Your task to perform on an android device: Search for "jbl flip 4" on bestbuy.com, select the first entry, add it to the cart, then select checkout. Image 0: 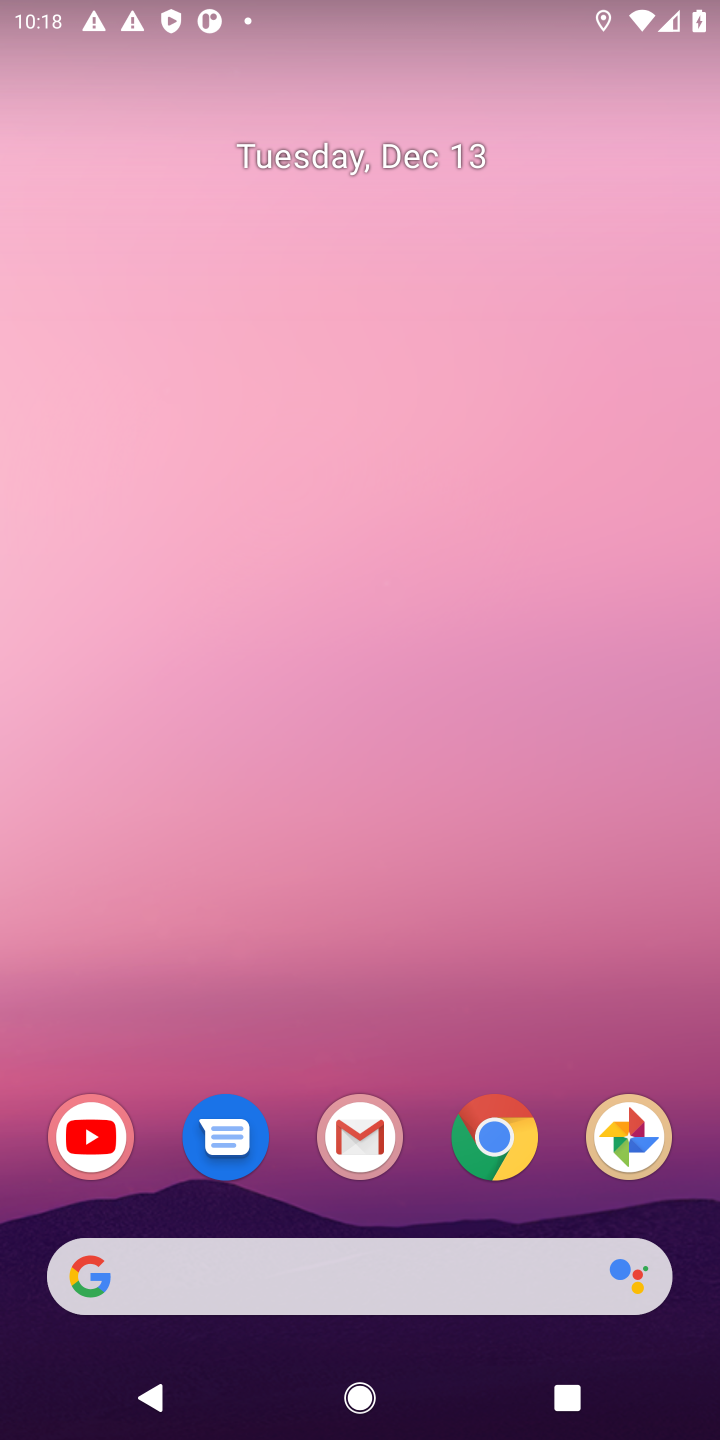
Step 0: click (501, 1166)
Your task to perform on an android device: Search for "jbl flip 4" on bestbuy.com, select the first entry, add it to the cart, then select checkout. Image 1: 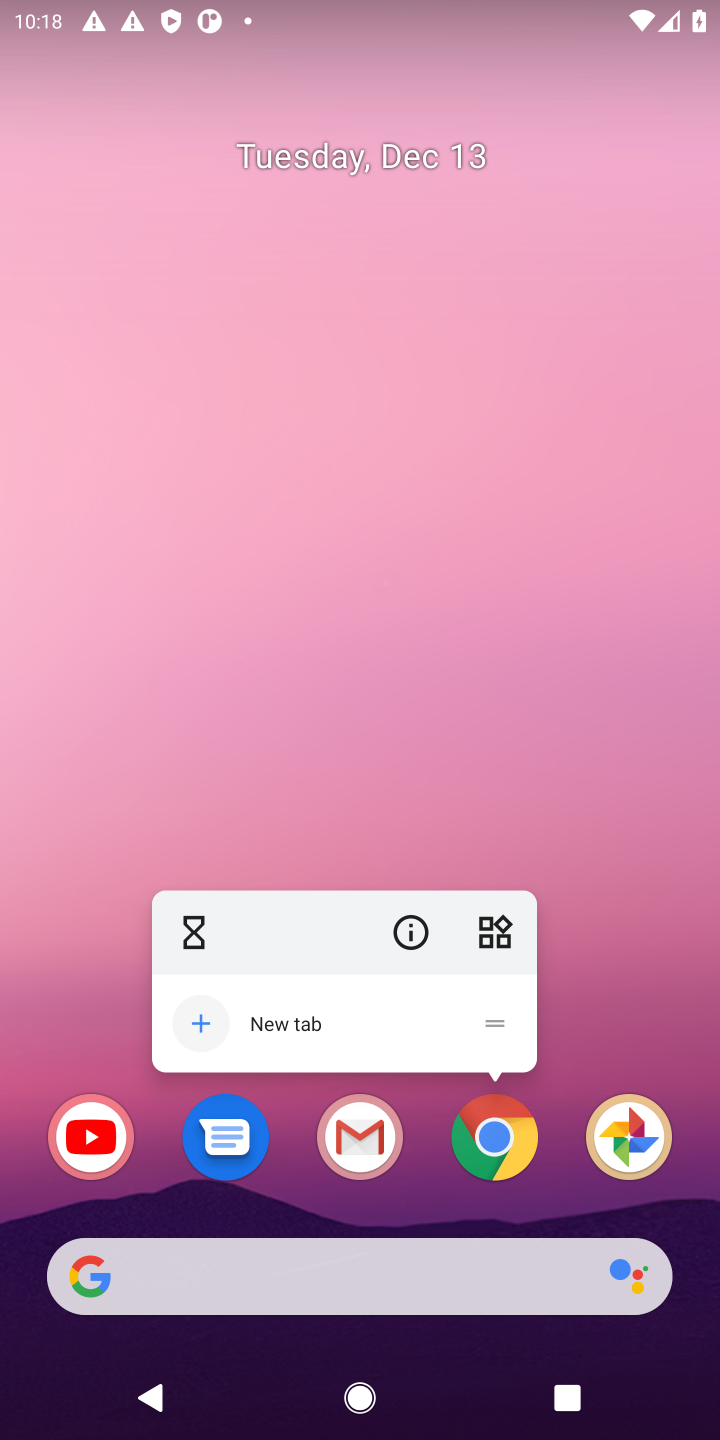
Step 1: click (499, 1130)
Your task to perform on an android device: Search for "jbl flip 4" on bestbuy.com, select the first entry, add it to the cart, then select checkout. Image 2: 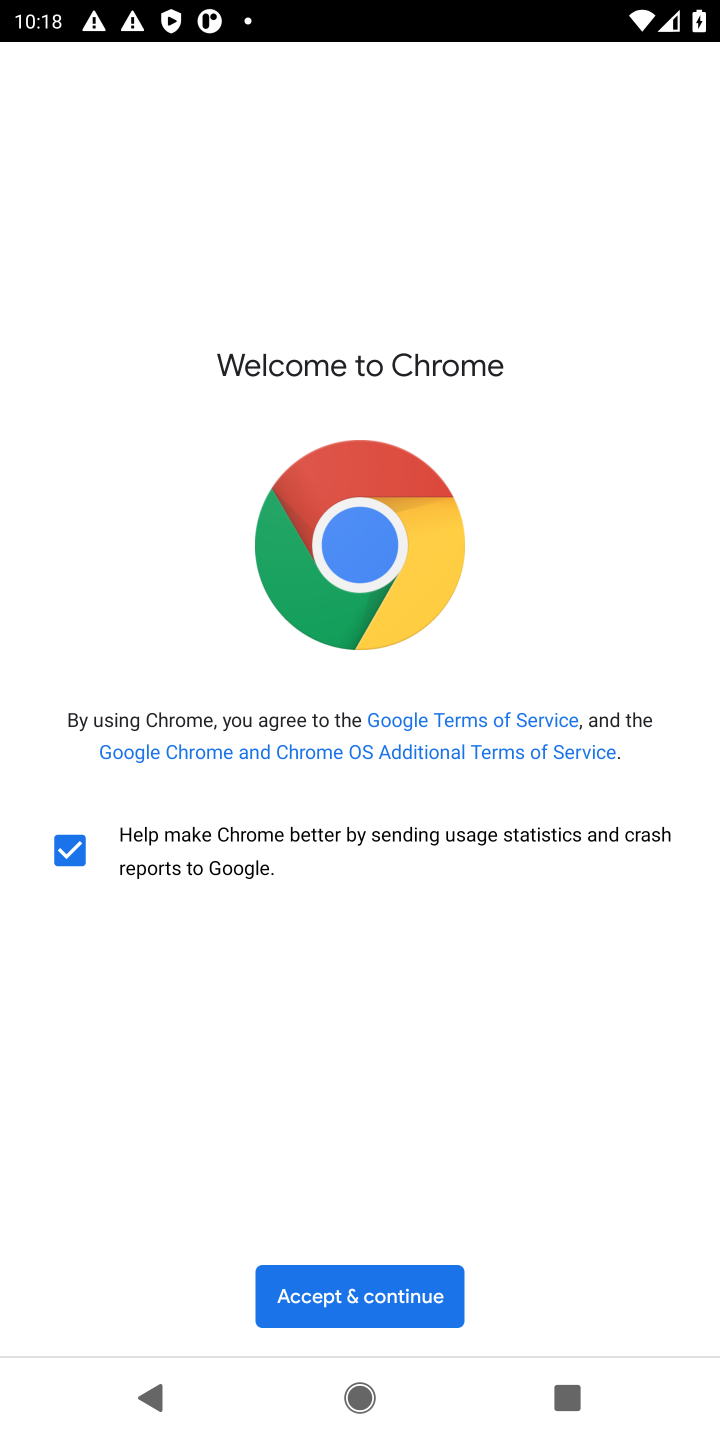
Step 2: click (391, 1272)
Your task to perform on an android device: Search for "jbl flip 4" on bestbuy.com, select the first entry, add it to the cart, then select checkout. Image 3: 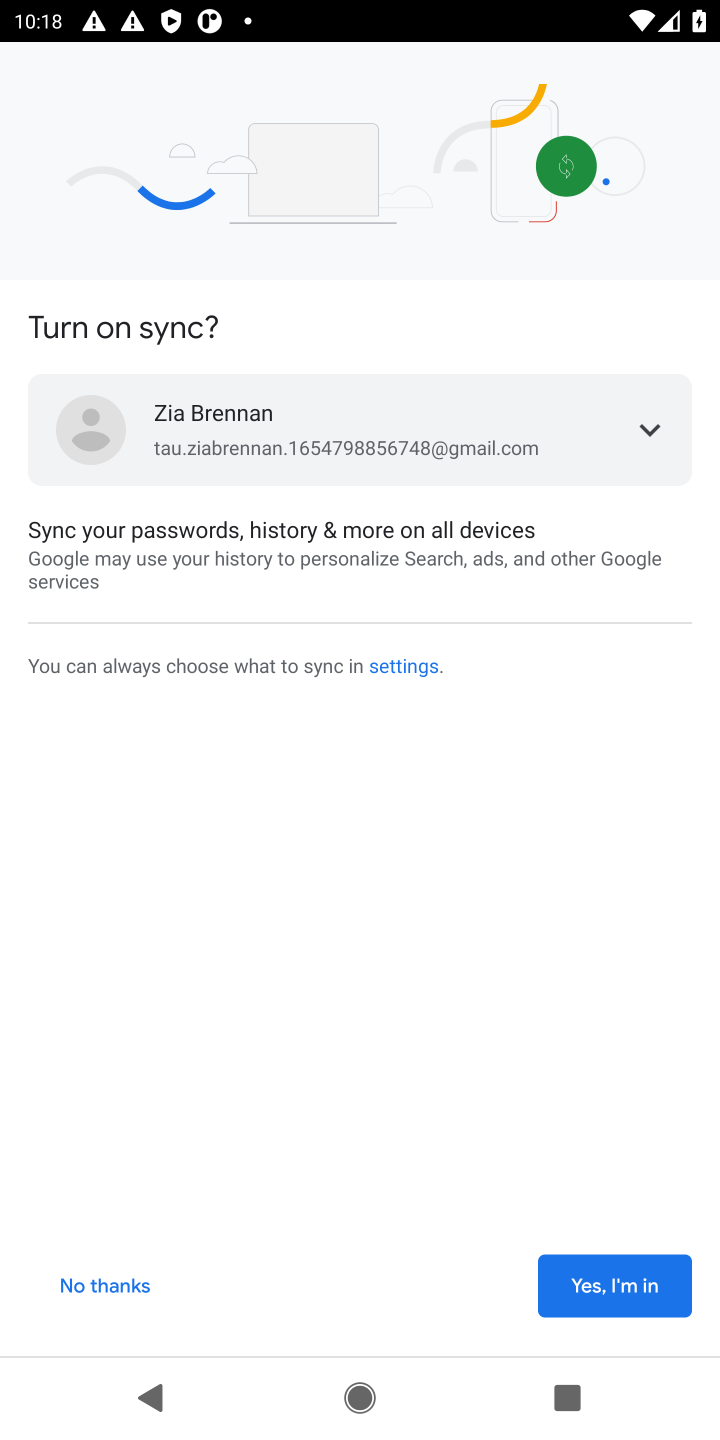
Step 3: click (575, 1272)
Your task to perform on an android device: Search for "jbl flip 4" on bestbuy.com, select the first entry, add it to the cart, then select checkout. Image 4: 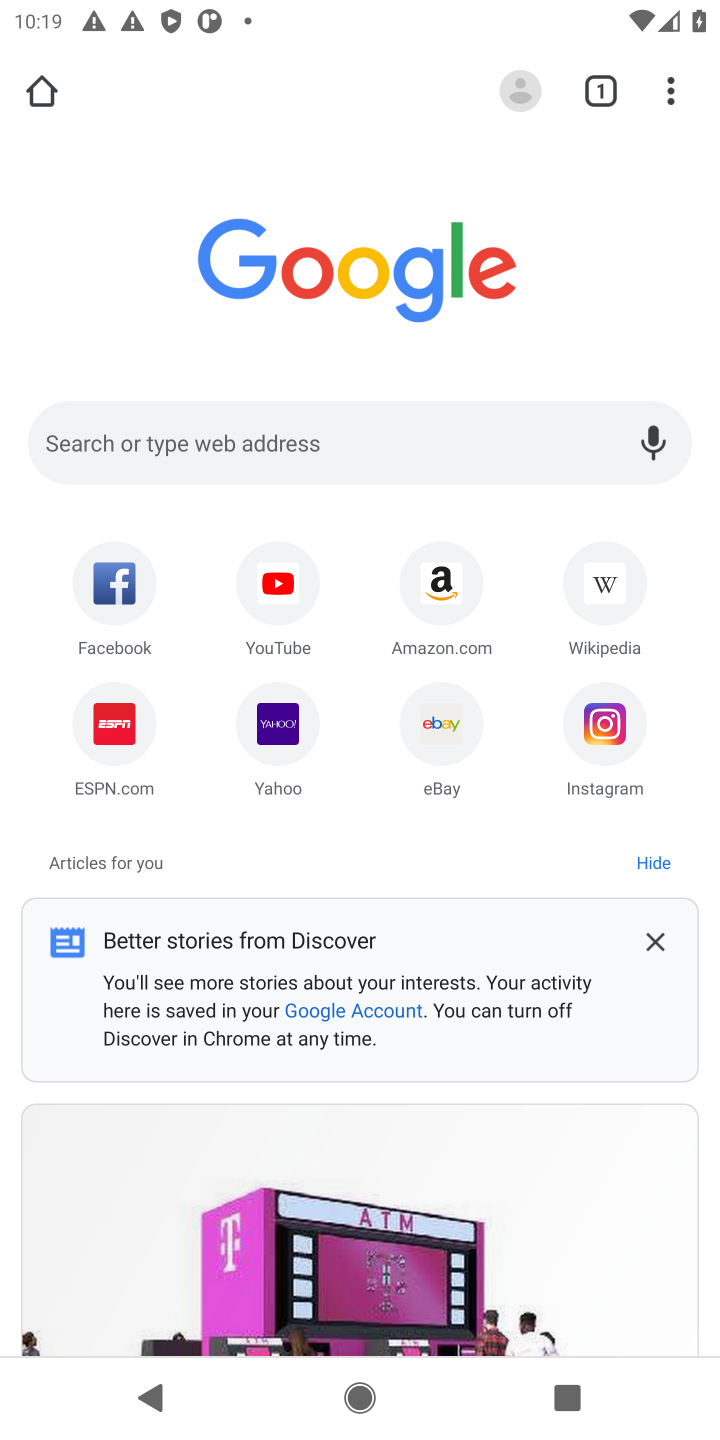
Step 4: click (358, 448)
Your task to perform on an android device: Search for "jbl flip 4" on bestbuy.com, select the first entry, add it to the cart, then select checkout. Image 5: 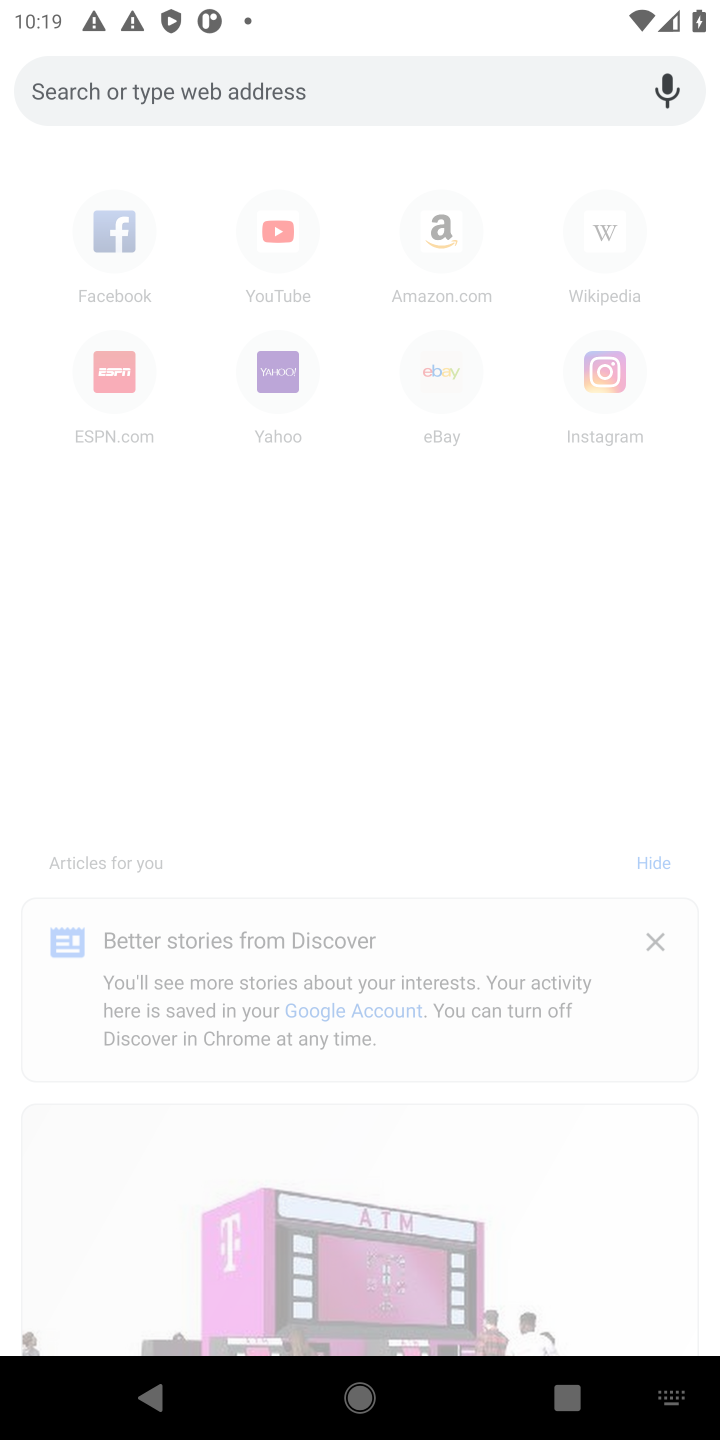
Step 5: type "bestbuy"
Your task to perform on an android device: Search for "jbl flip 4" on bestbuy.com, select the first entry, add it to the cart, then select checkout. Image 6: 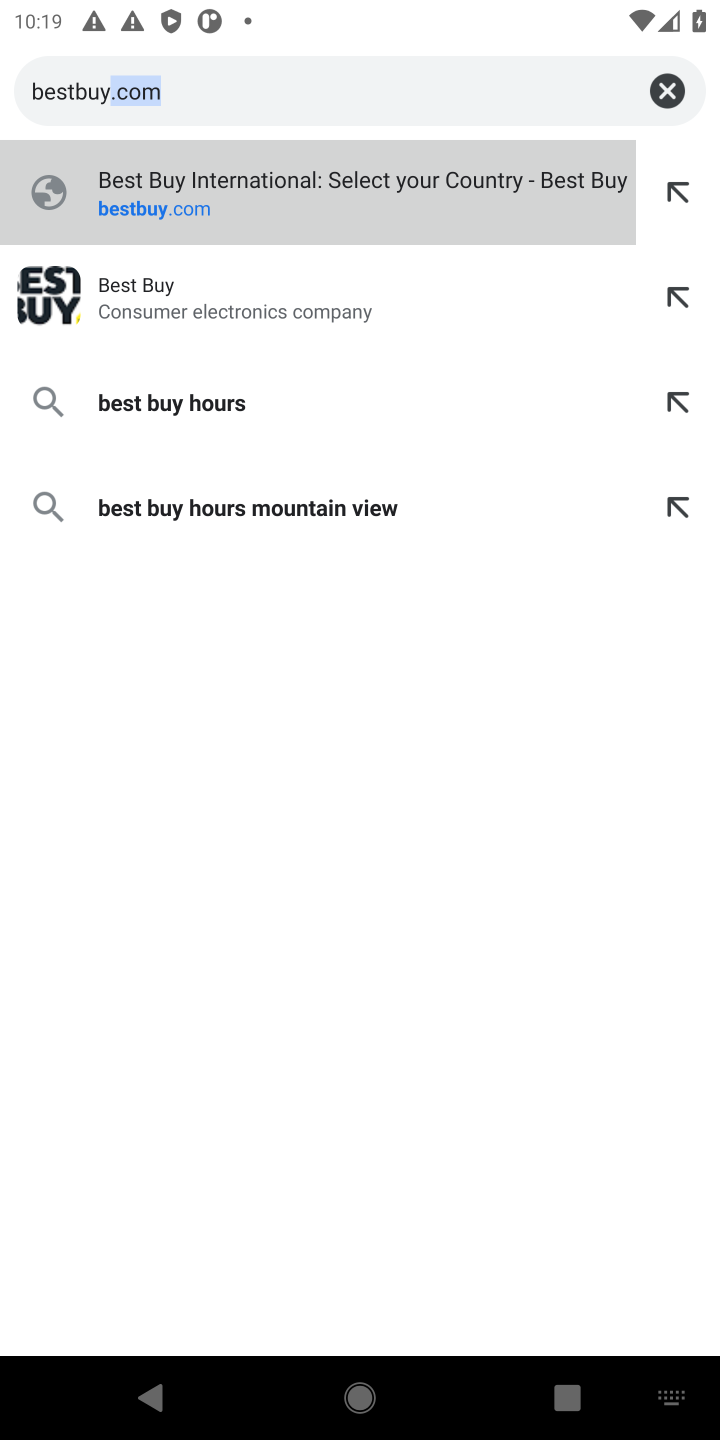
Step 6: click (125, 203)
Your task to perform on an android device: Search for "jbl flip 4" on bestbuy.com, select the first entry, add it to the cart, then select checkout. Image 7: 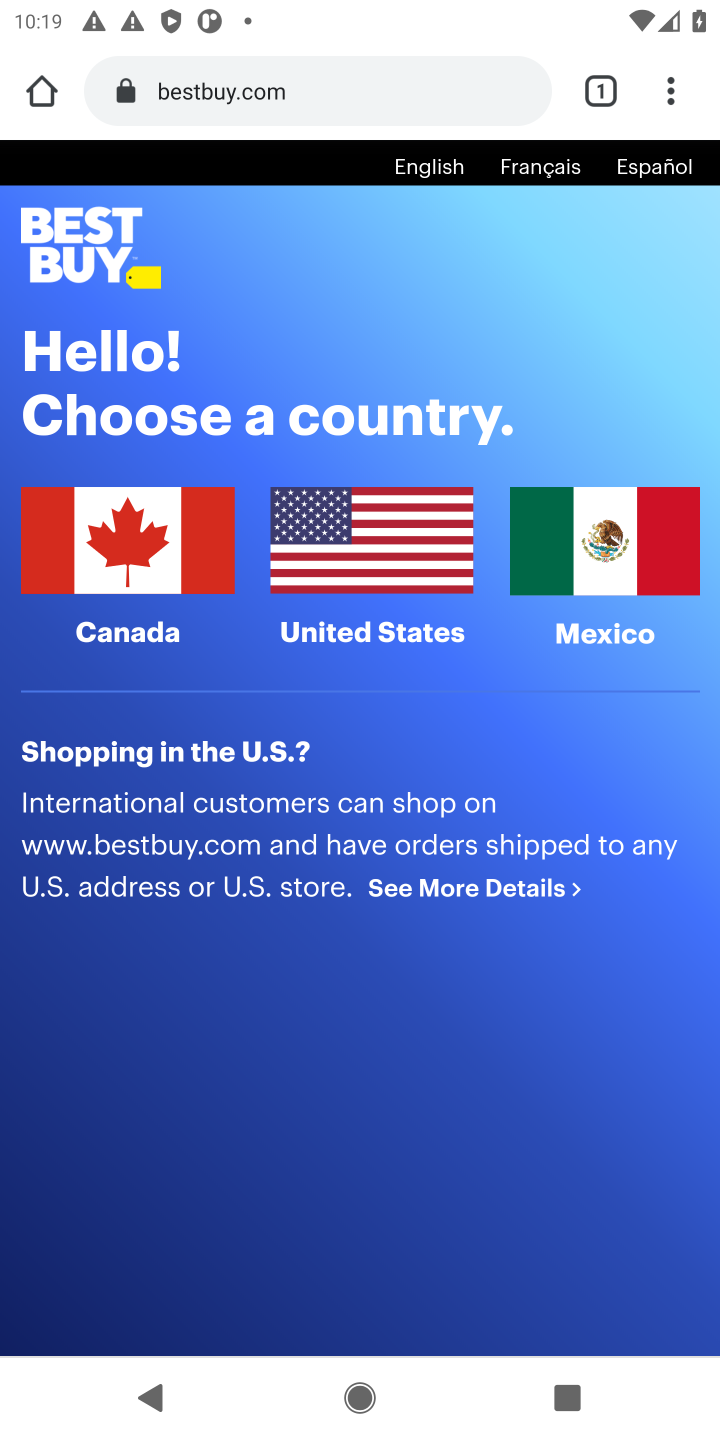
Step 7: click (310, 524)
Your task to perform on an android device: Search for "jbl flip 4" on bestbuy.com, select the first entry, add it to the cart, then select checkout. Image 8: 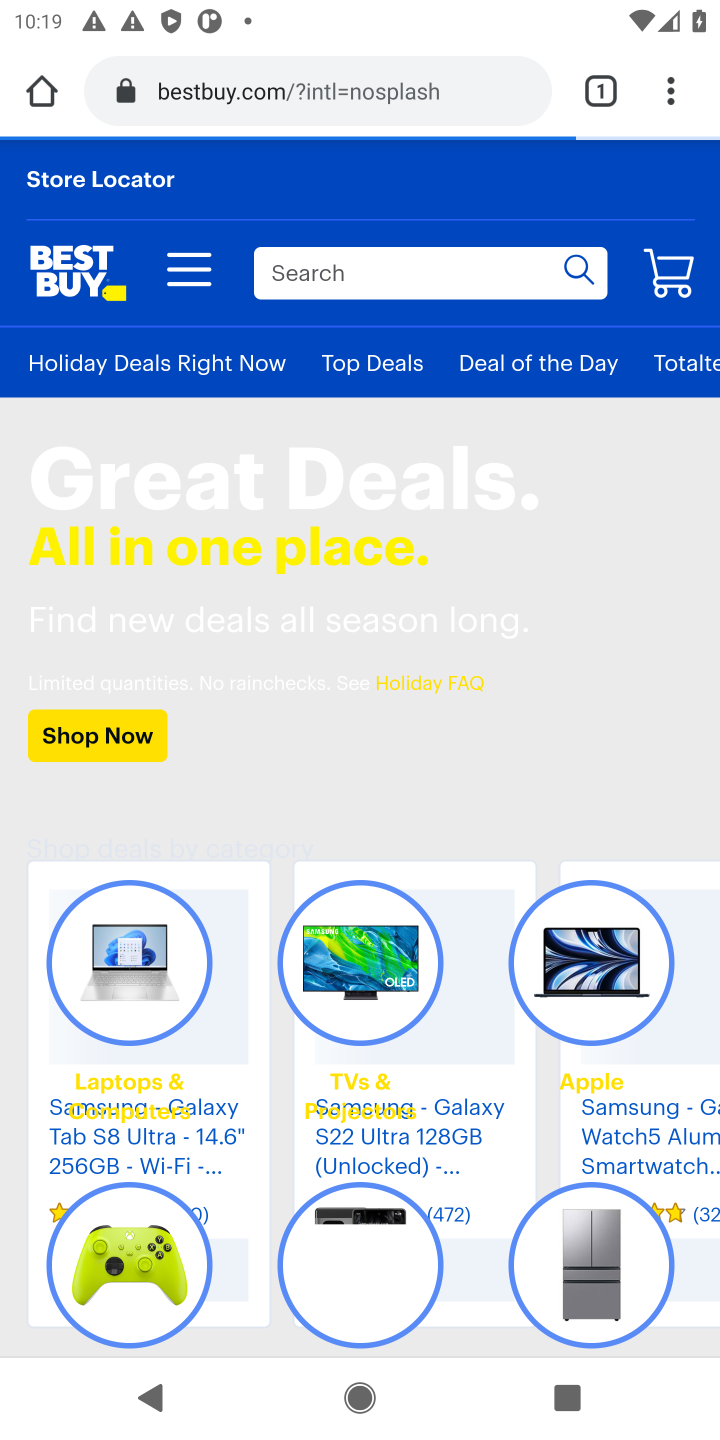
Step 8: click (310, 267)
Your task to perform on an android device: Search for "jbl flip 4" on bestbuy.com, select the first entry, add it to the cart, then select checkout. Image 9: 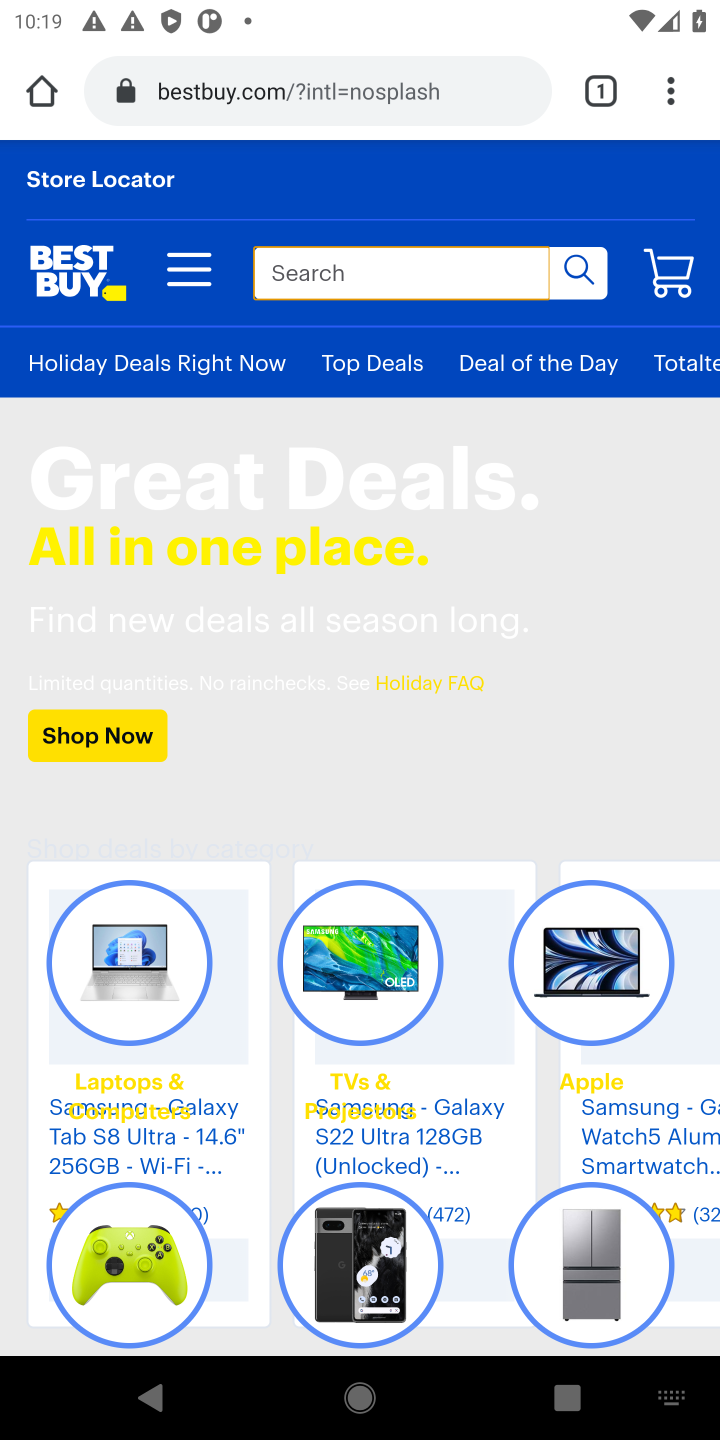
Step 9: type "jbl flip 4"
Your task to perform on an android device: Search for "jbl flip 4" on bestbuy.com, select the first entry, add it to the cart, then select checkout. Image 10: 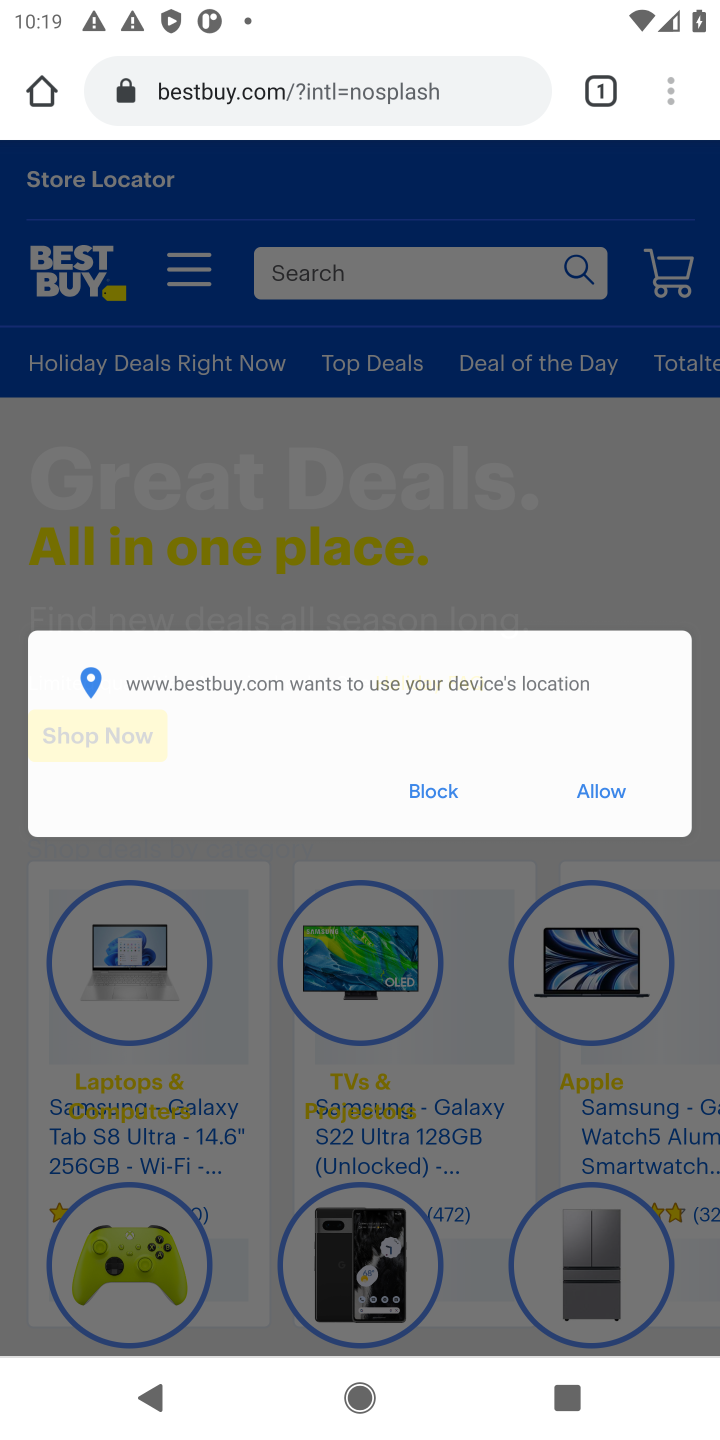
Step 10: click (336, 274)
Your task to perform on an android device: Search for "jbl flip 4" on bestbuy.com, select the first entry, add it to the cart, then select checkout. Image 11: 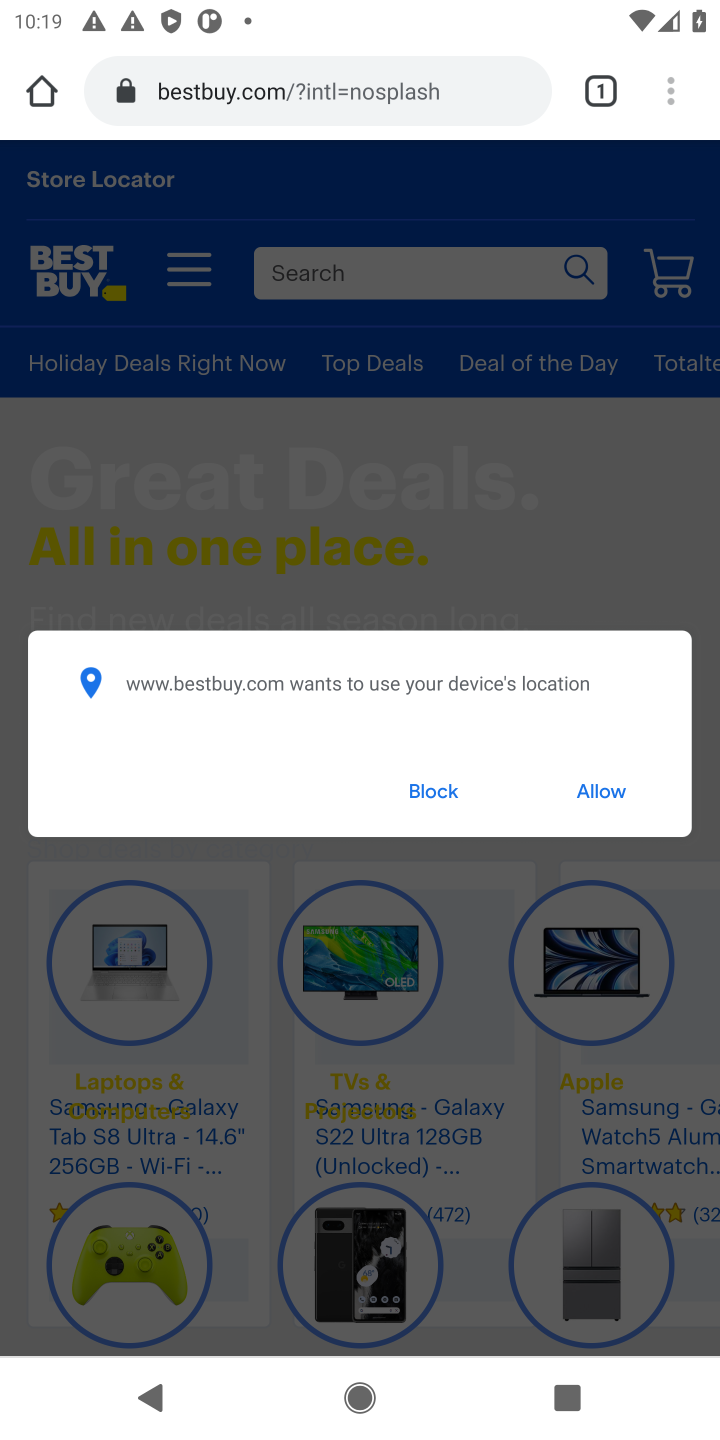
Step 11: click (436, 796)
Your task to perform on an android device: Search for "jbl flip 4" on bestbuy.com, select the first entry, add it to the cart, then select checkout. Image 12: 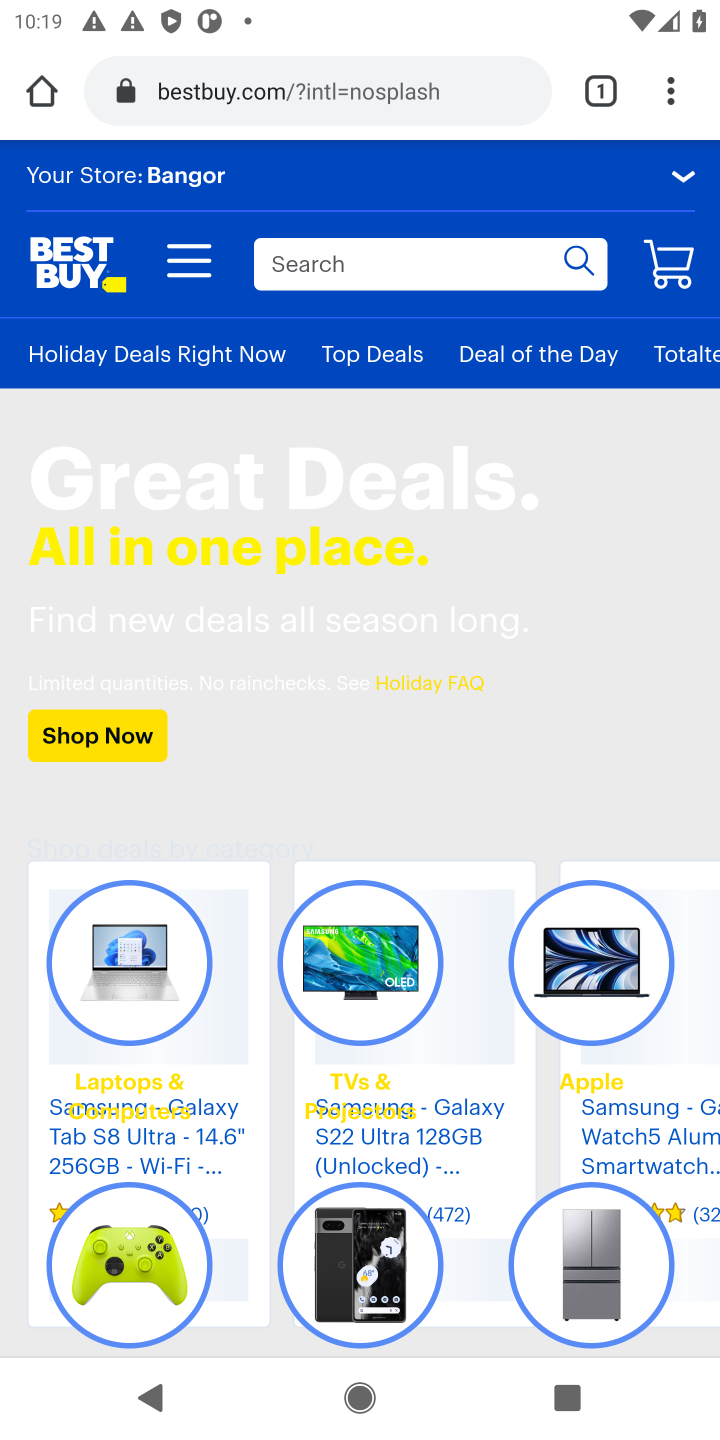
Step 12: click (350, 256)
Your task to perform on an android device: Search for "jbl flip 4" on bestbuy.com, select the first entry, add it to the cart, then select checkout. Image 13: 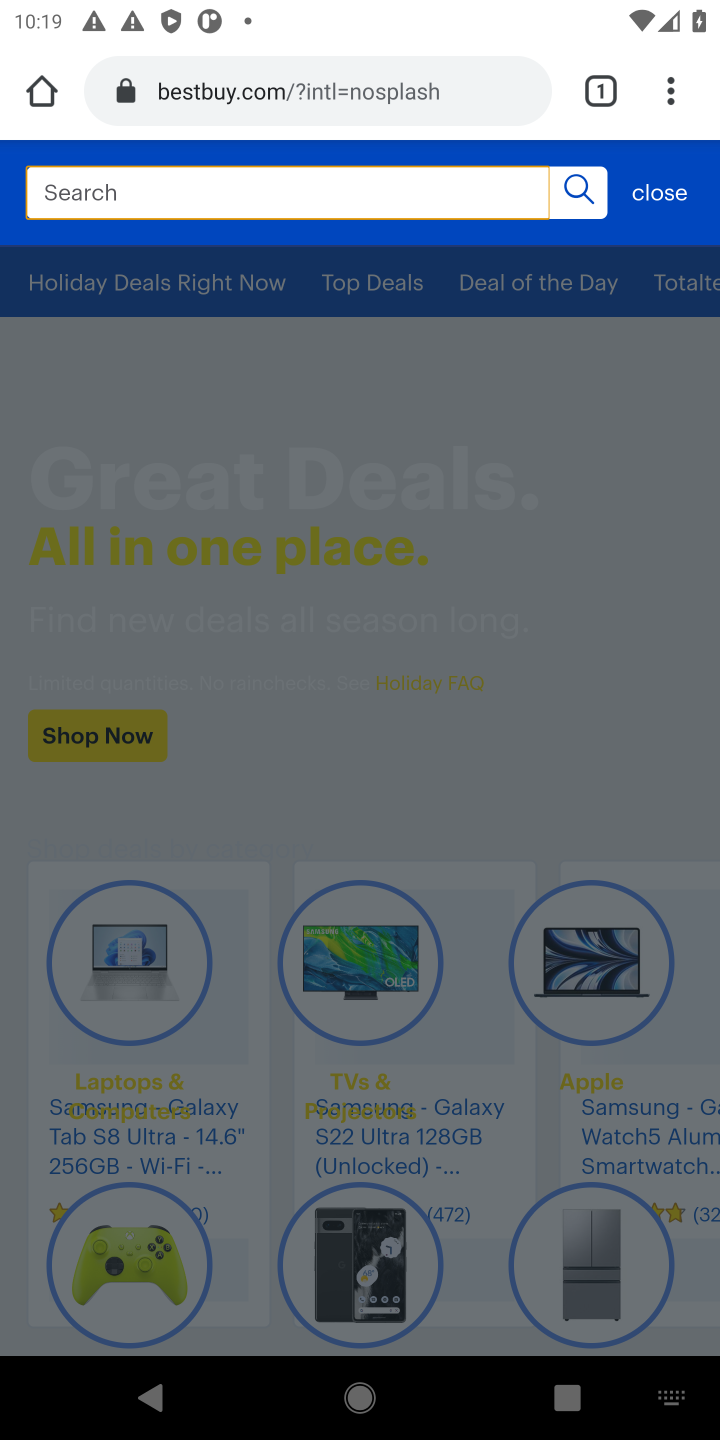
Step 13: type "jbl flip 4"
Your task to perform on an android device: Search for "jbl flip 4" on bestbuy.com, select the first entry, add it to the cart, then select checkout. Image 14: 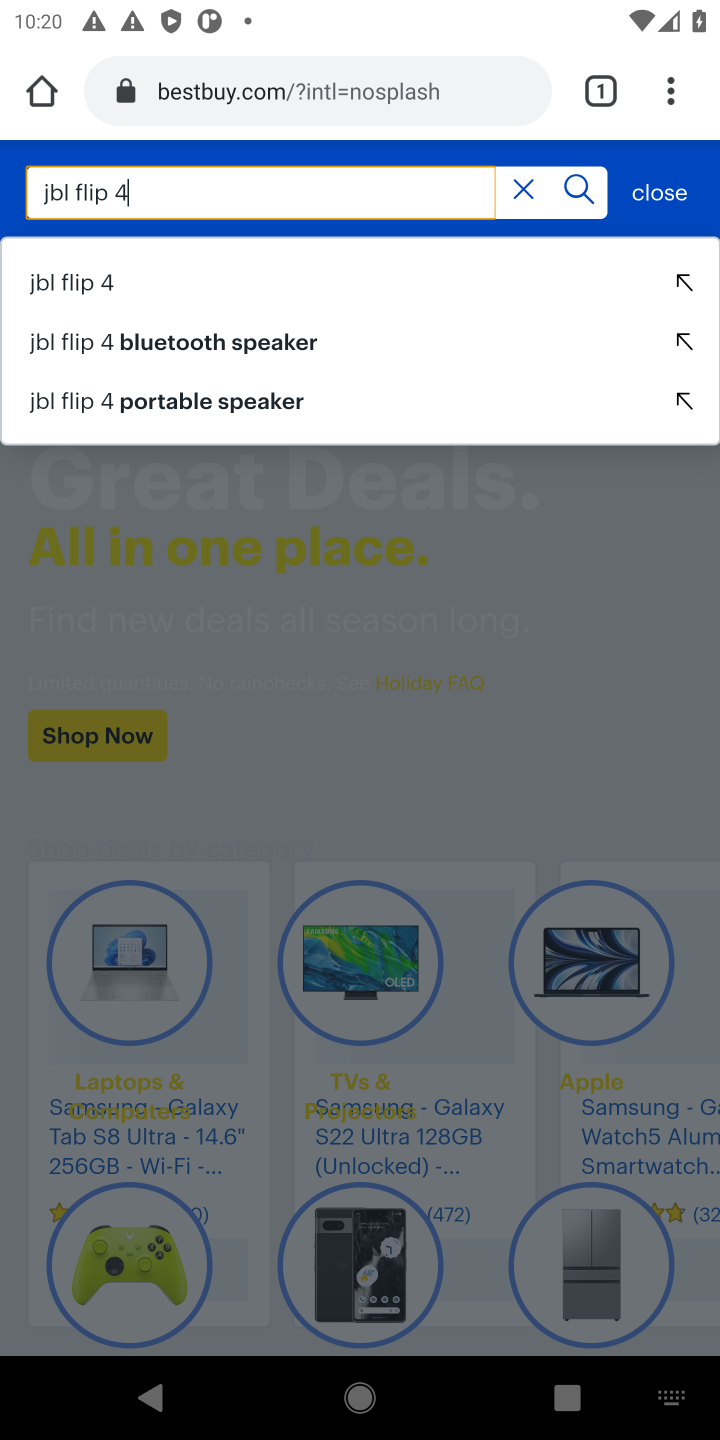
Step 14: click (580, 194)
Your task to perform on an android device: Search for "jbl flip 4" on bestbuy.com, select the first entry, add it to the cart, then select checkout. Image 15: 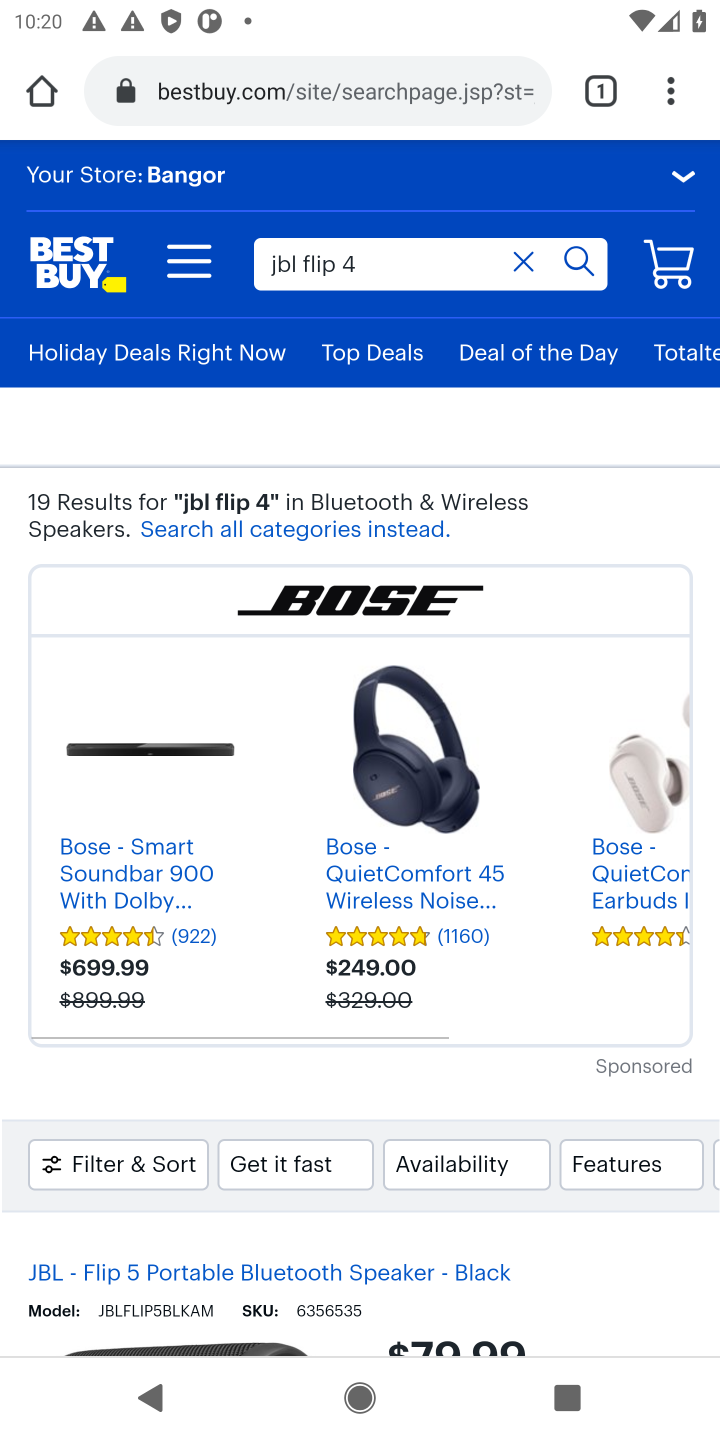
Step 15: drag from (571, 1271) to (637, 574)
Your task to perform on an android device: Search for "jbl flip 4" on bestbuy.com, select the first entry, add it to the cart, then select checkout. Image 16: 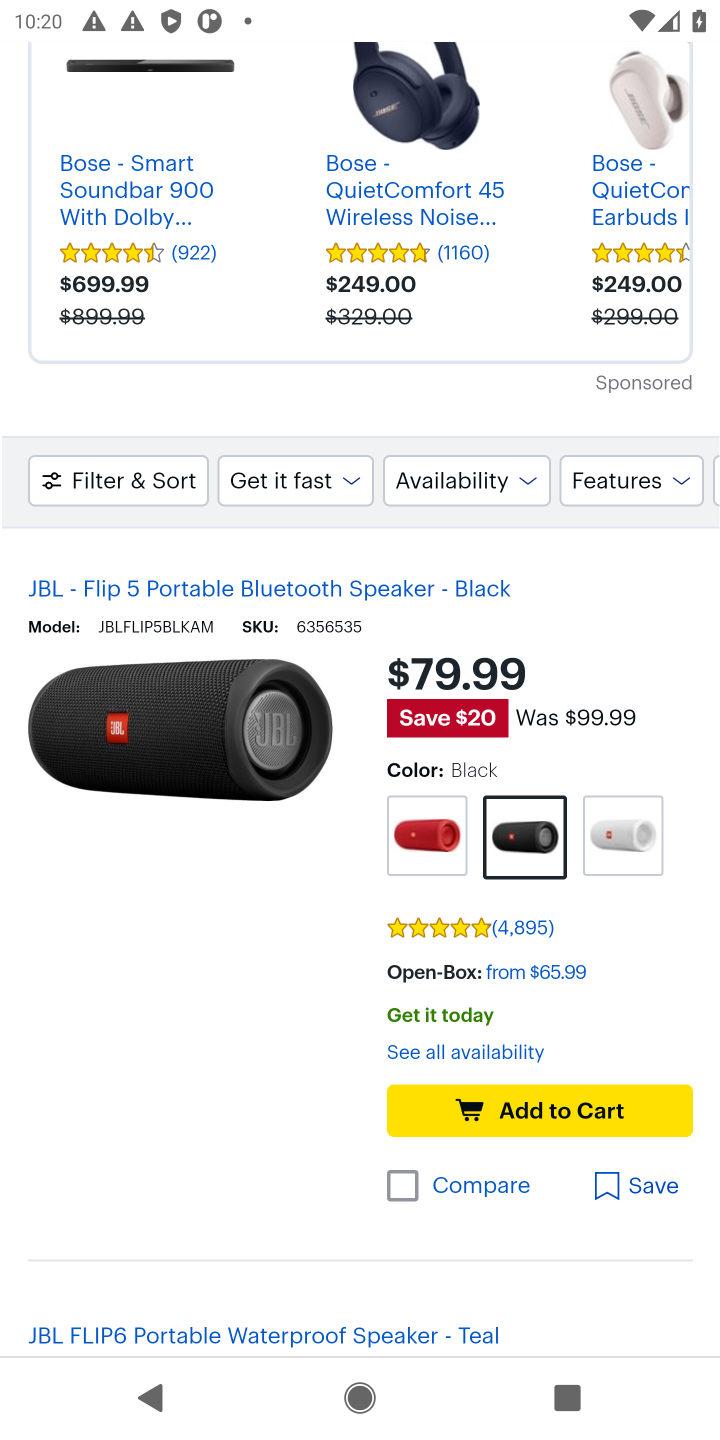
Step 16: click (553, 1110)
Your task to perform on an android device: Search for "jbl flip 4" on bestbuy.com, select the first entry, add it to the cart, then select checkout. Image 17: 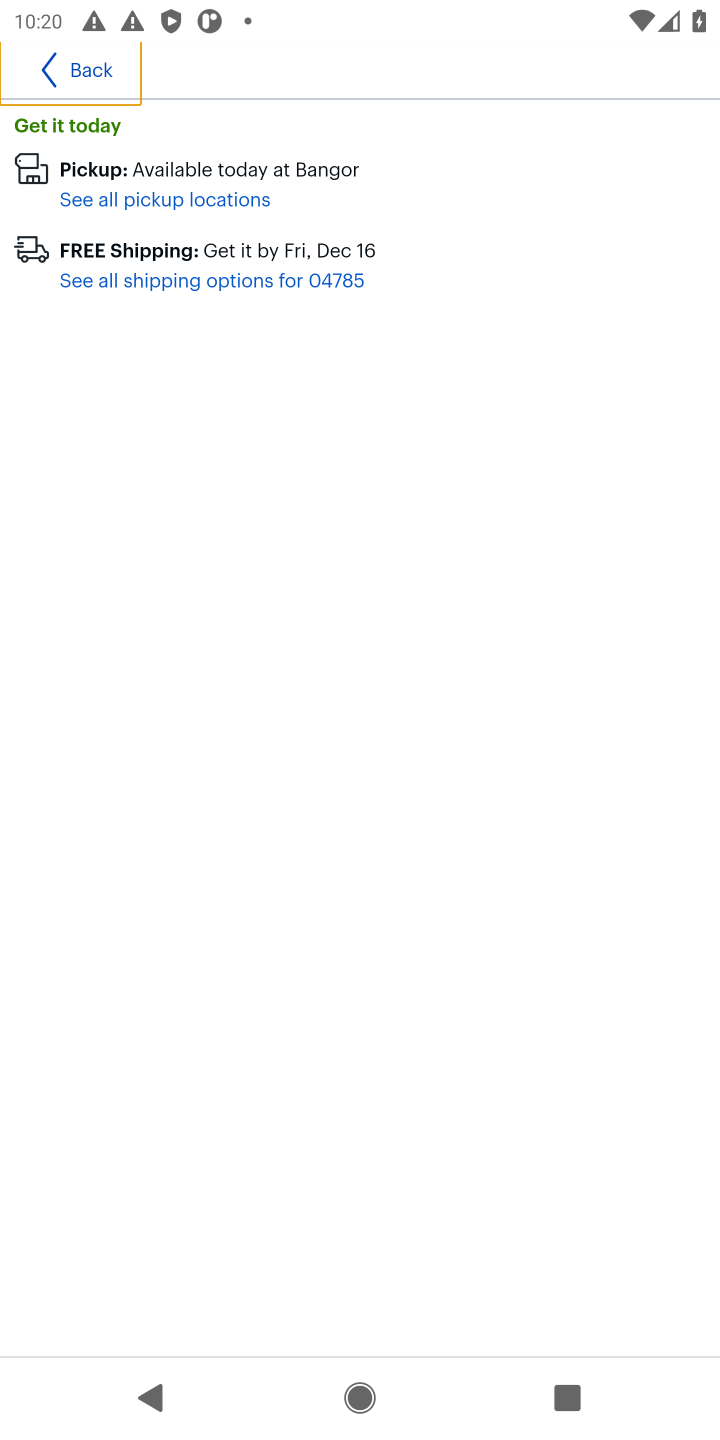
Step 17: click (74, 71)
Your task to perform on an android device: Search for "jbl flip 4" on bestbuy.com, select the first entry, add it to the cart, then select checkout. Image 18: 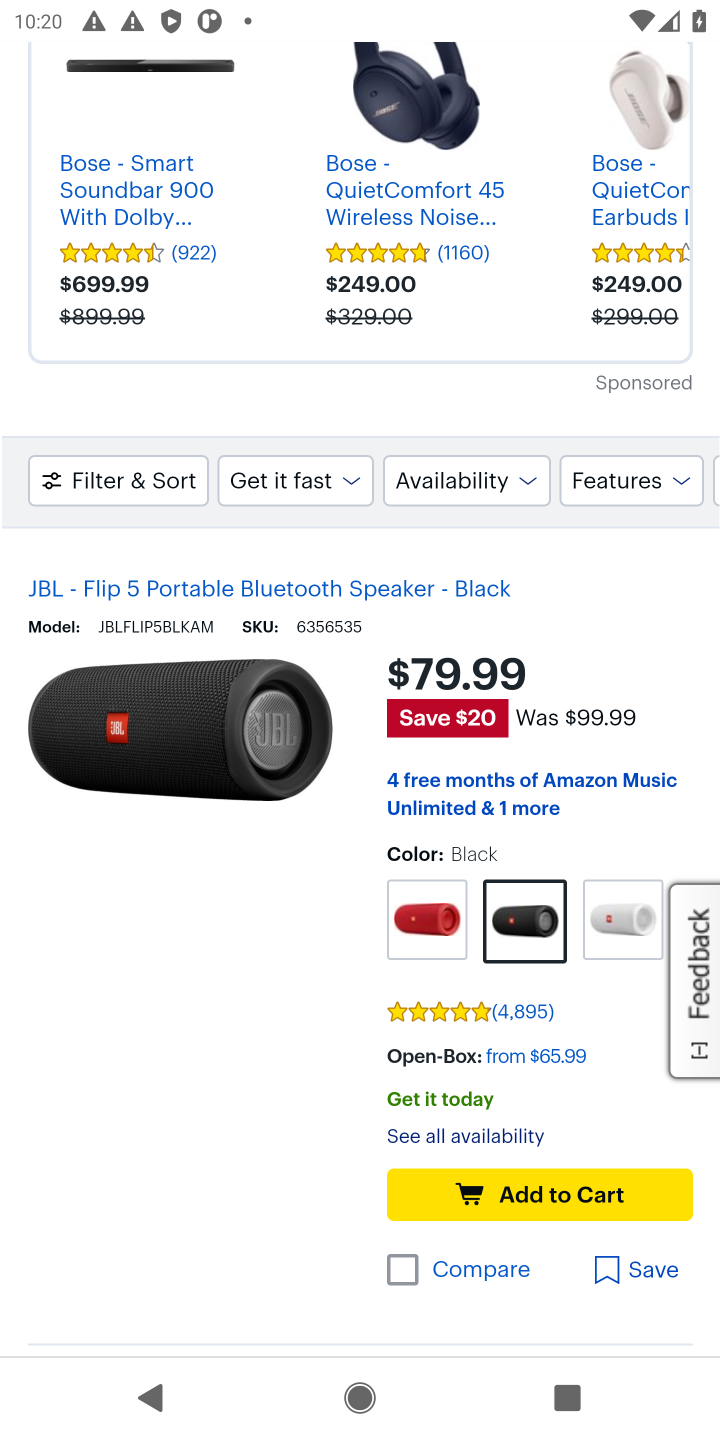
Step 18: click (553, 1199)
Your task to perform on an android device: Search for "jbl flip 4" on bestbuy.com, select the first entry, add it to the cart, then select checkout. Image 19: 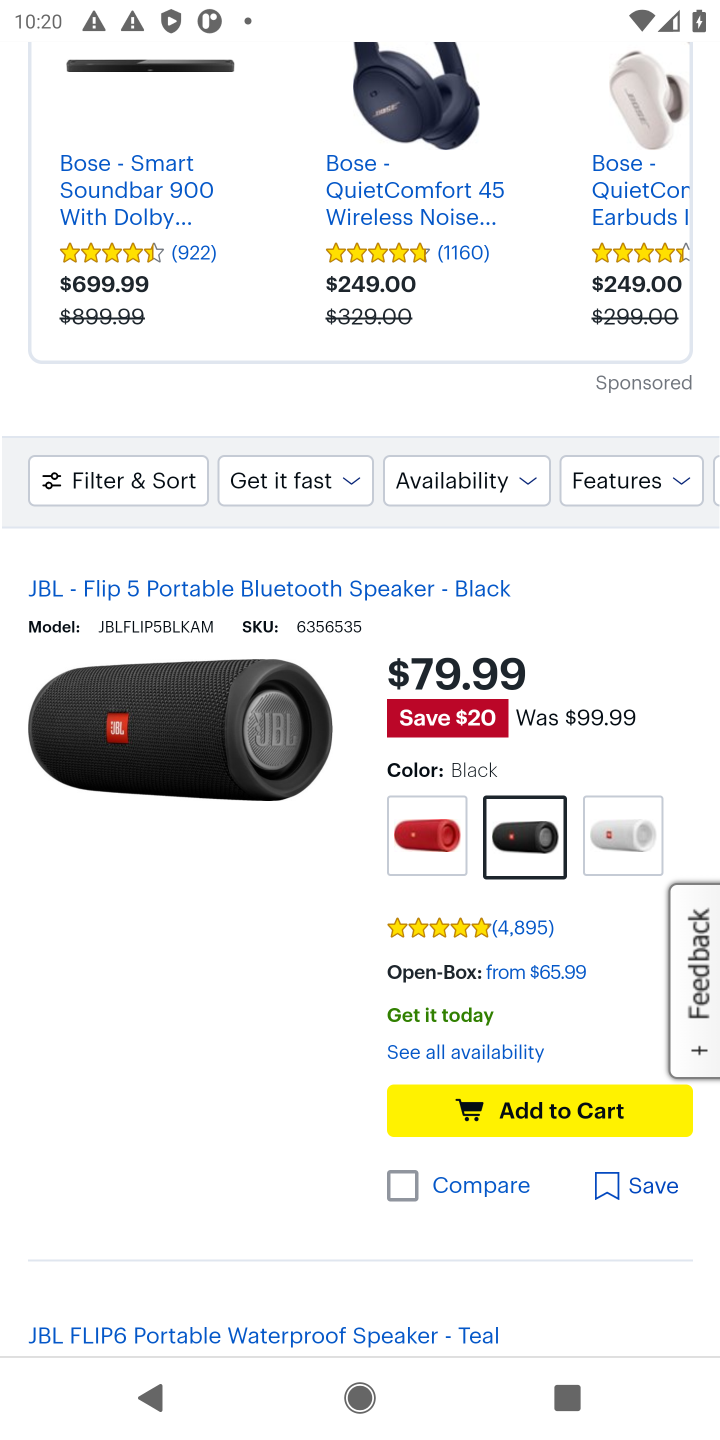
Step 19: task complete